Your task to perform on an android device: toggle javascript in the chrome app Image 0: 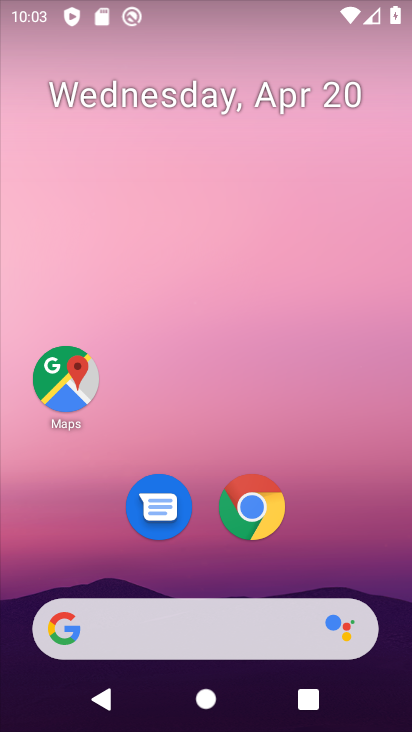
Step 0: drag from (191, 435) to (203, 95)
Your task to perform on an android device: toggle javascript in the chrome app Image 1: 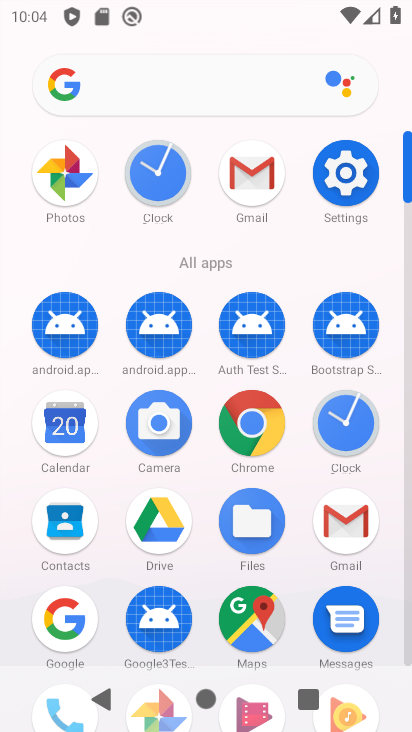
Step 1: click (256, 421)
Your task to perform on an android device: toggle javascript in the chrome app Image 2: 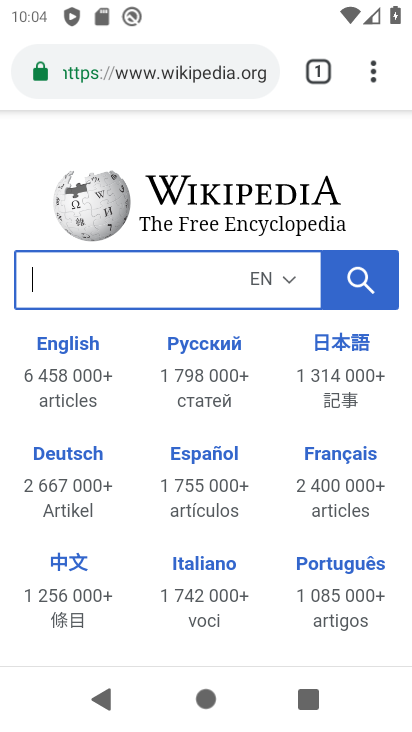
Step 2: click (376, 76)
Your task to perform on an android device: toggle javascript in the chrome app Image 3: 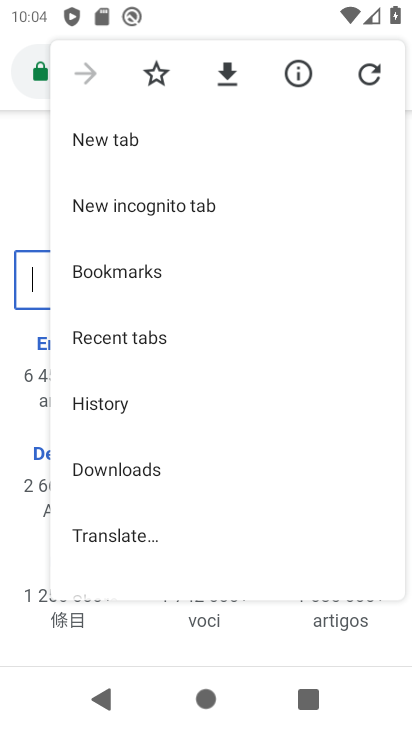
Step 3: click (313, 198)
Your task to perform on an android device: toggle javascript in the chrome app Image 4: 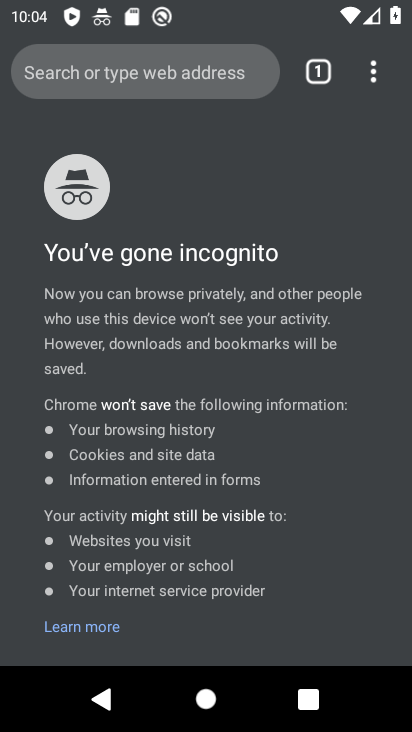
Step 4: click (371, 85)
Your task to perform on an android device: toggle javascript in the chrome app Image 5: 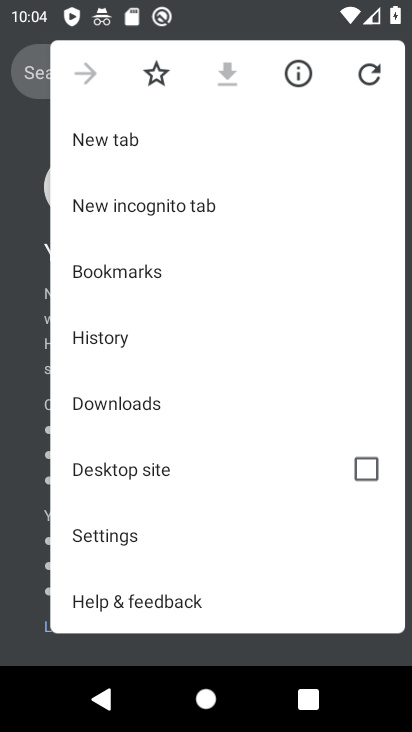
Step 5: click (154, 533)
Your task to perform on an android device: toggle javascript in the chrome app Image 6: 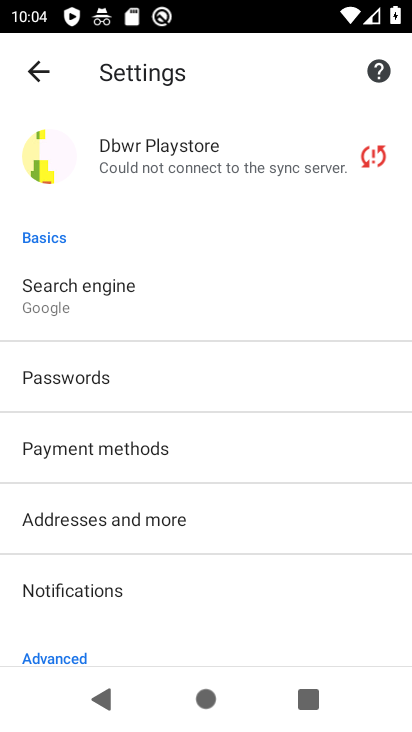
Step 6: drag from (190, 565) to (223, 150)
Your task to perform on an android device: toggle javascript in the chrome app Image 7: 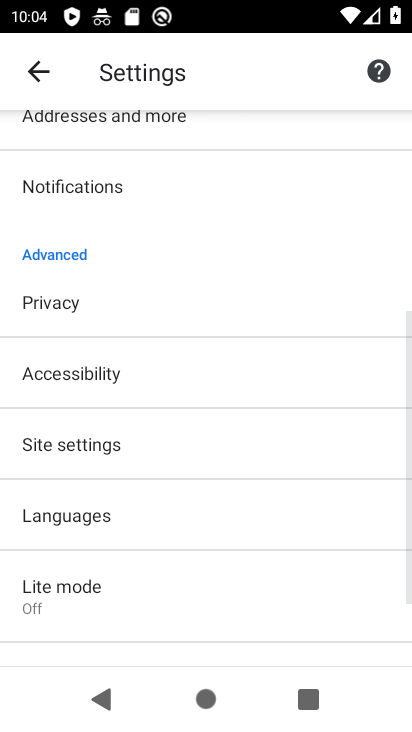
Step 7: drag from (162, 425) to (206, 191)
Your task to perform on an android device: toggle javascript in the chrome app Image 8: 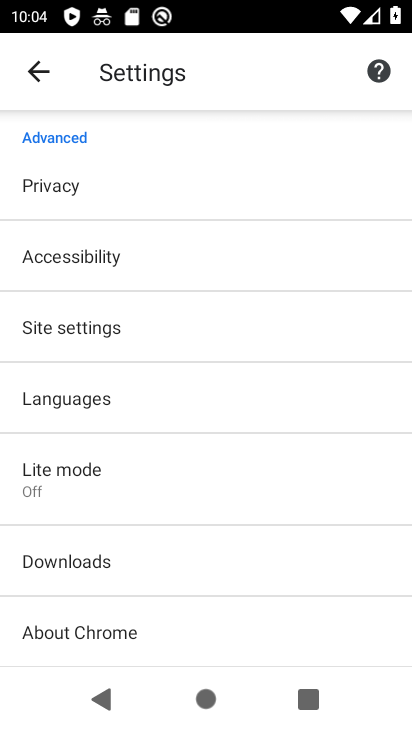
Step 8: click (79, 323)
Your task to perform on an android device: toggle javascript in the chrome app Image 9: 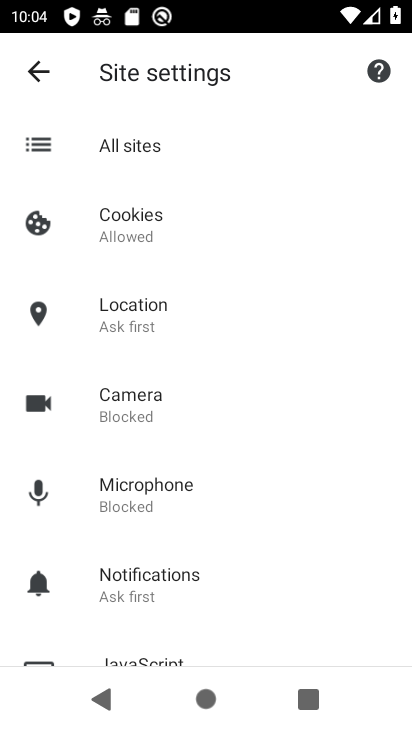
Step 9: drag from (156, 565) to (189, 236)
Your task to perform on an android device: toggle javascript in the chrome app Image 10: 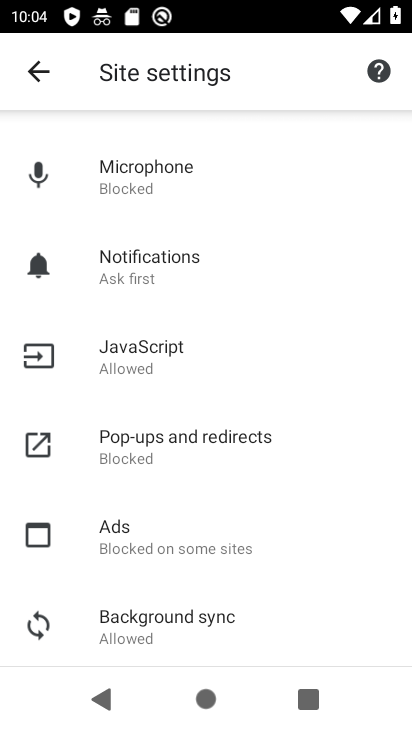
Step 10: click (139, 375)
Your task to perform on an android device: toggle javascript in the chrome app Image 11: 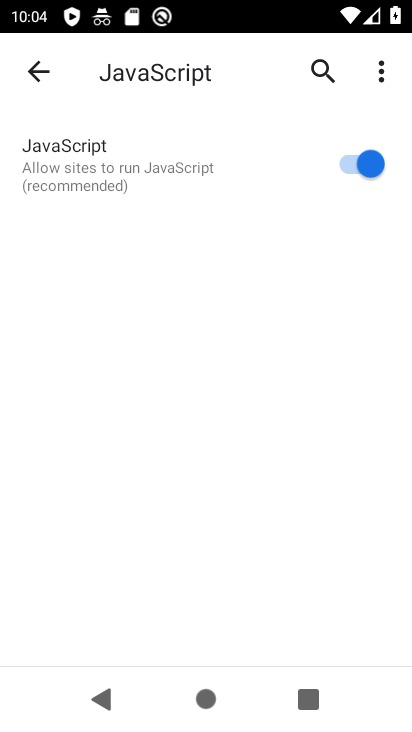
Step 11: click (351, 170)
Your task to perform on an android device: toggle javascript in the chrome app Image 12: 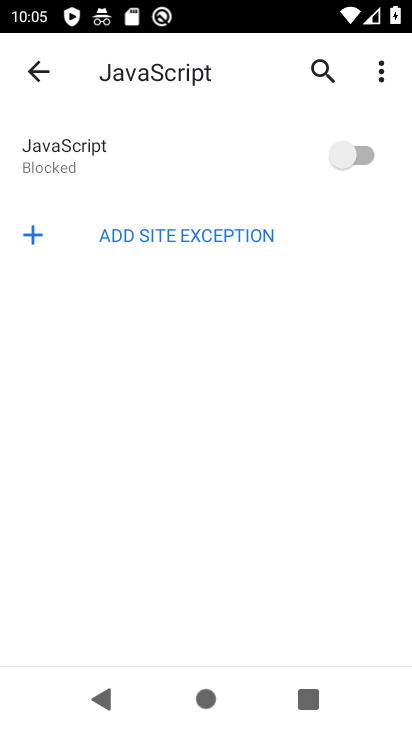
Step 12: task complete